Your task to perform on an android device: find photos in the google photos app Image 0: 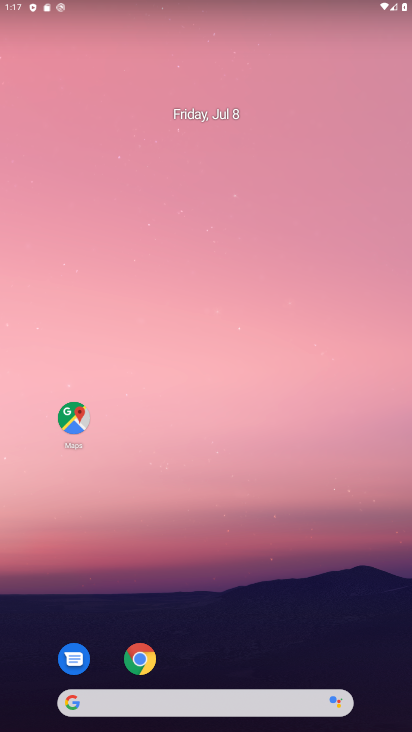
Step 0: drag from (228, 667) to (175, 131)
Your task to perform on an android device: find photos in the google photos app Image 1: 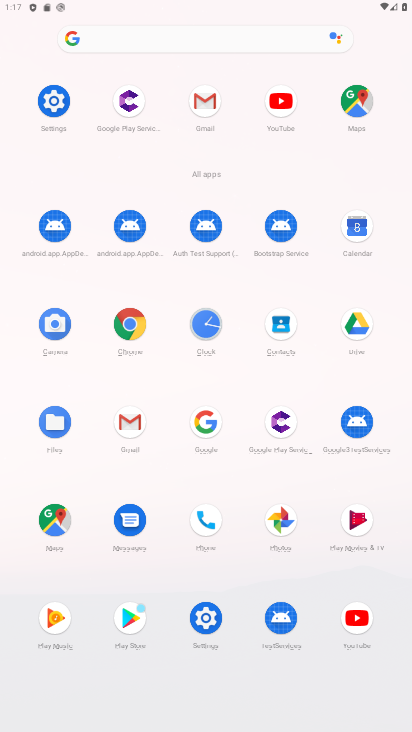
Step 1: click (282, 520)
Your task to perform on an android device: find photos in the google photos app Image 2: 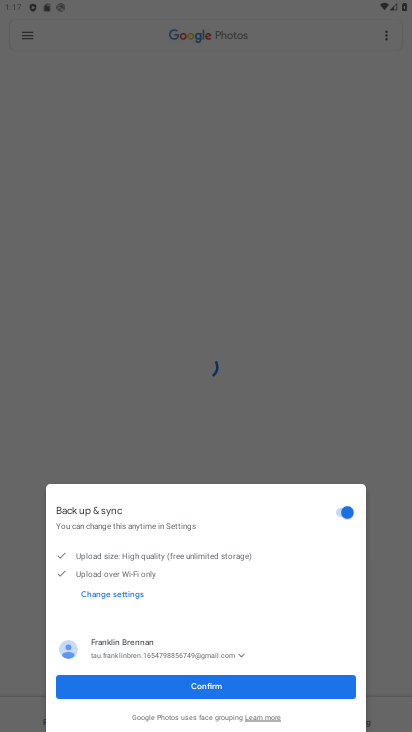
Step 2: click (212, 684)
Your task to perform on an android device: find photos in the google photos app Image 3: 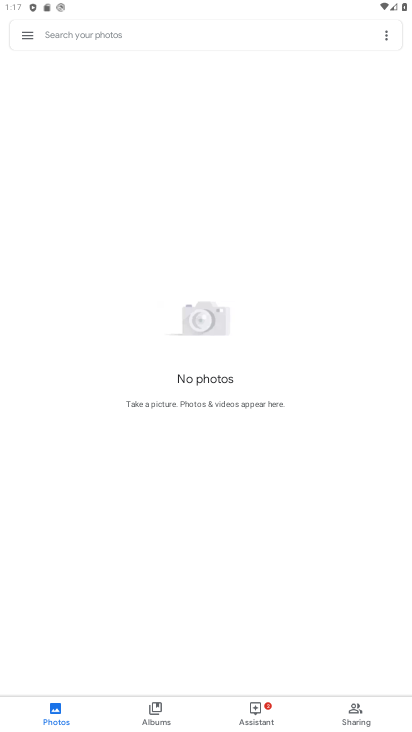
Step 3: click (158, 706)
Your task to perform on an android device: find photos in the google photos app Image 4: 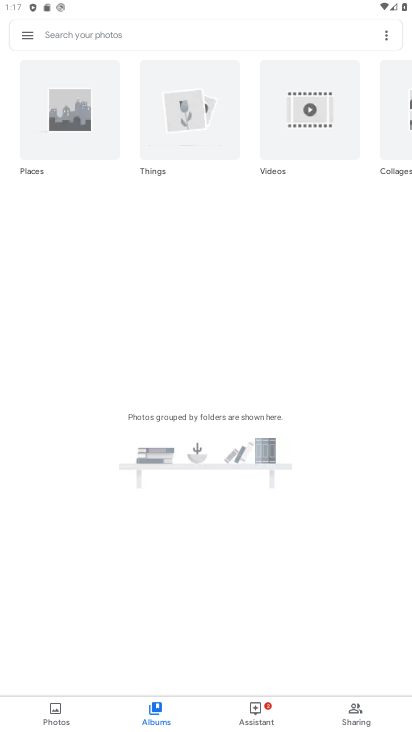
Step 4: click (57, 129)
Your task to perform on an android device: find photos in the google photos app Image 5: 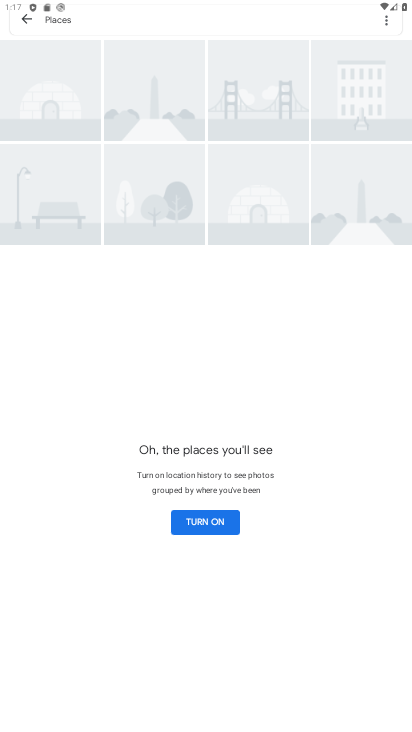
Step 5: click (214, 523)
Your task to perform on an android device: find photos in the google photos app Image 6: 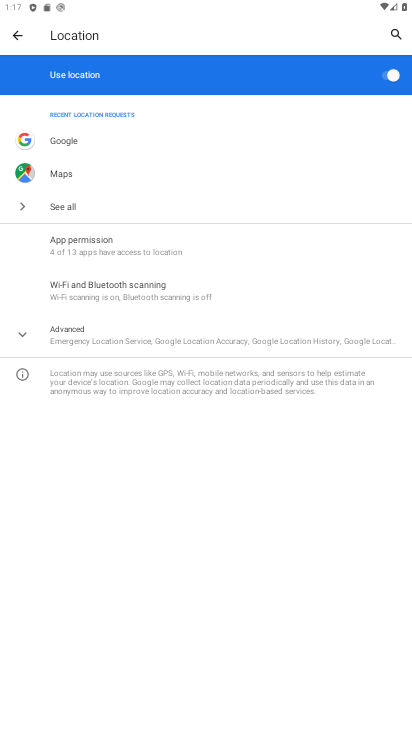
Step 6: task complete